Your task to perform on an android device: Go to Google Image 0: 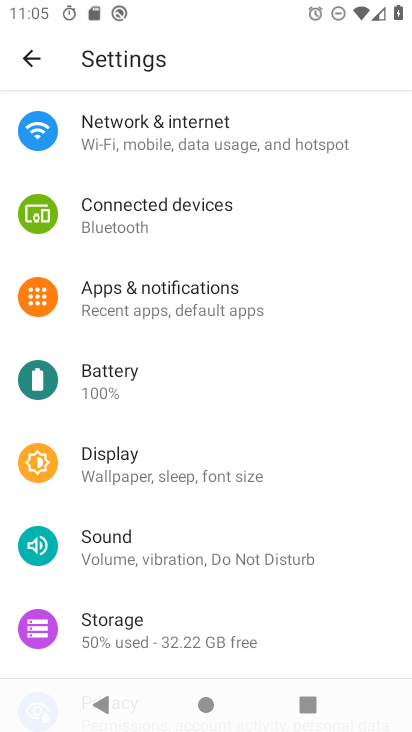
Step 0: press home button
Your task to perform on an android device: Go to Google Image 1: 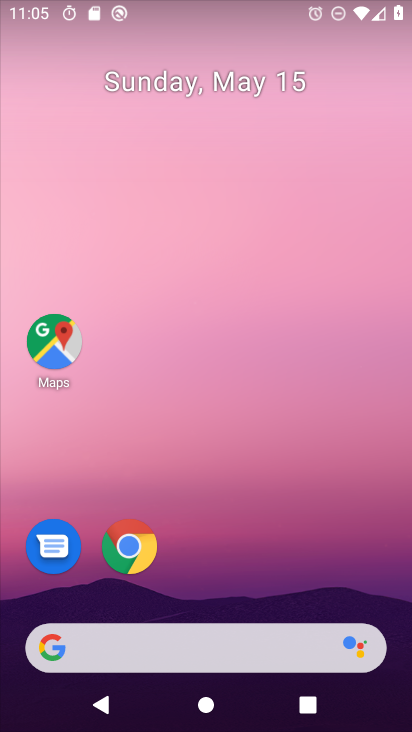
Step 1: drag from (227, 524) to (249, 117)
Your task to perform on an android device: Go to Google Image 2: 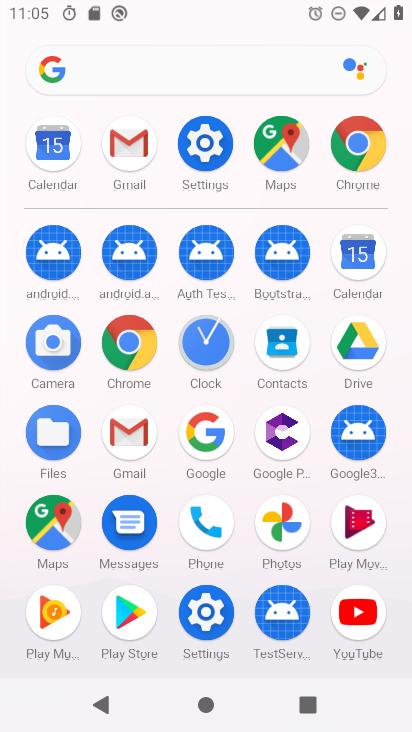
Step 2: click (207, 443)
Your task to perform on an android device: Go to Google Image 3: 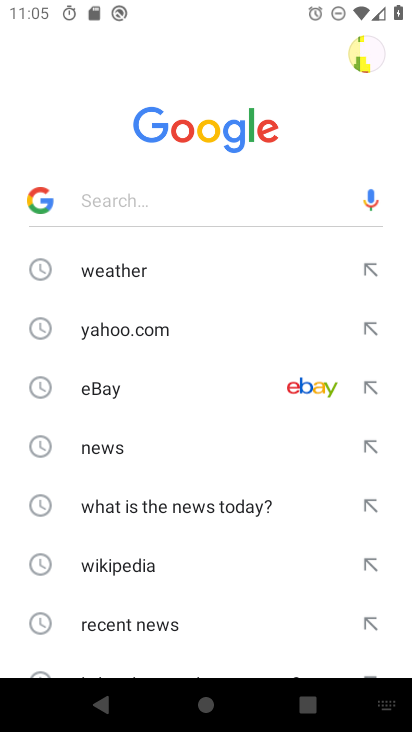
Step 3: task complete